Your task to perform on an android device: clear history in the chrome app Image 0: 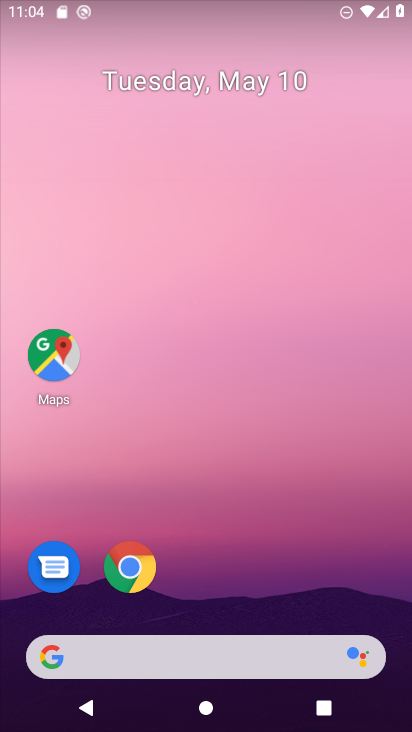
Step 0: click (130, 579)
Your task to perform on an android device: clear history in the chrome app Image 1: 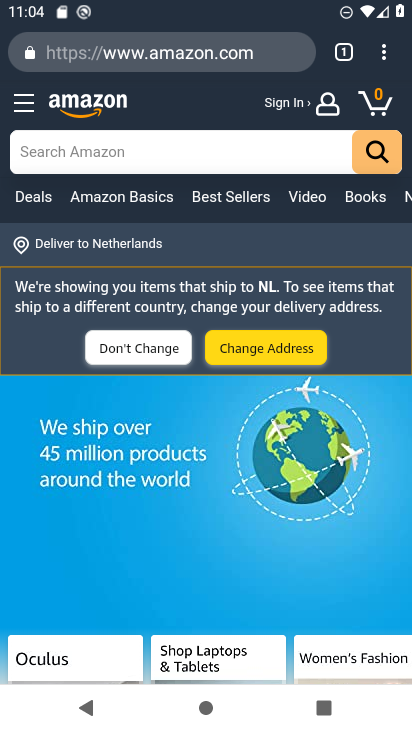
Step 1: drag from (385, 53) to (229, 299)
Your task to perform on an android device: clear history in the chrome app Image 2: 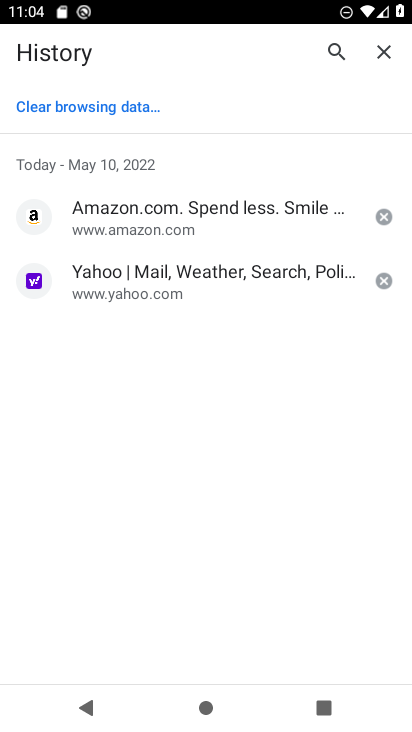
Step 2: click (95, 108)
Your task to perform on an android device: clear history in the chrome app Image 3: 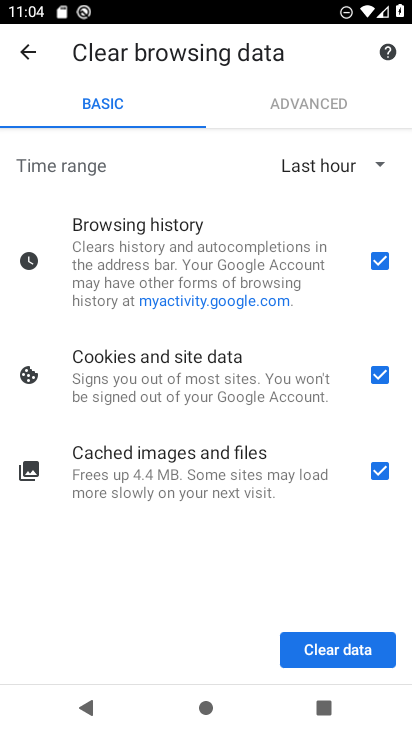
Step 3: click (369, 386)
Your task to perform on an android device: clear history in the chrome app Image 4: 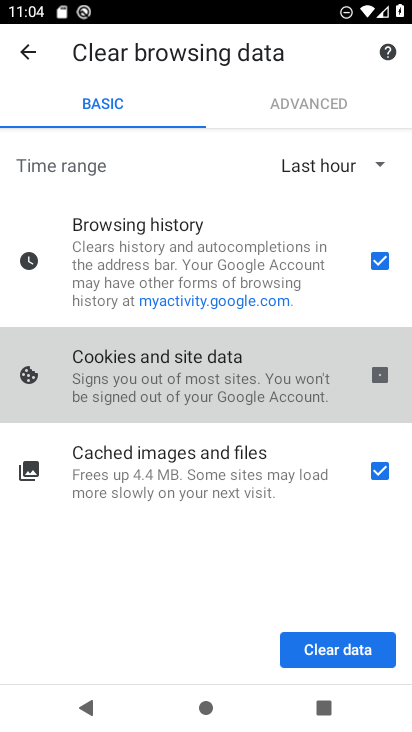
Step 4: click (370, 459)
Your task to perform on an android device: clear history in the chrome app Image 5: 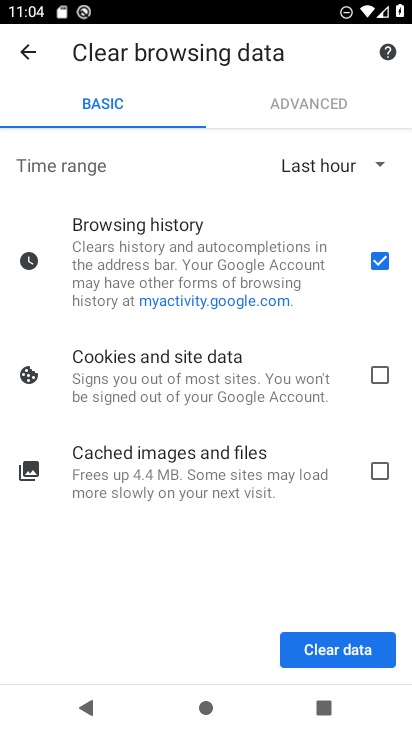
Step 5: click (325, 660)
Your task to perform on an android device: clear history in the chrome app Image 6: 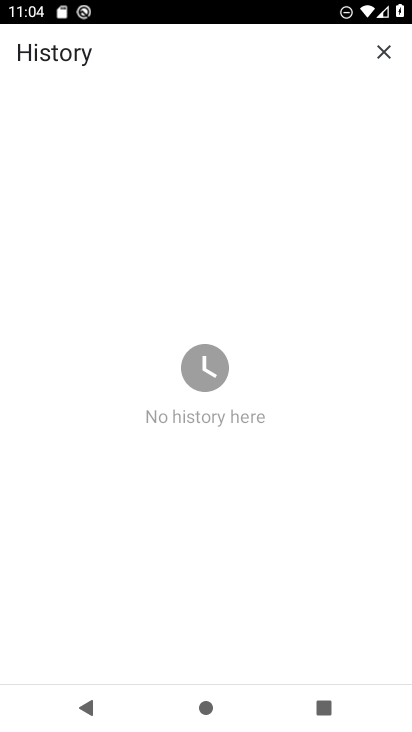
Step 6: task complete